Your task to perform on an android device: Search for the best rated tool bag on Lowe's. Image 0: 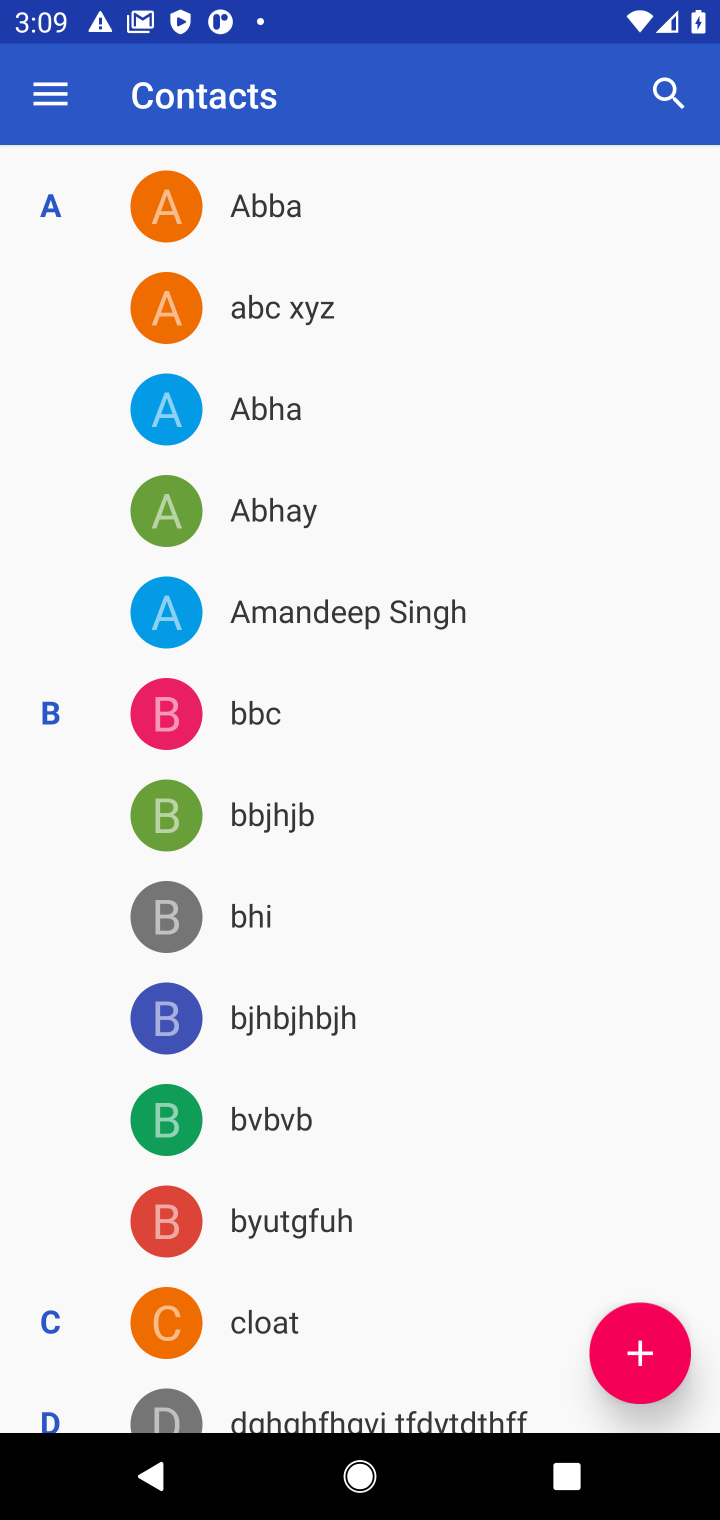
Step 0: press home button
Your task to perform on an android device: Search for the best rated tool bag on Lowe's. Image 1: 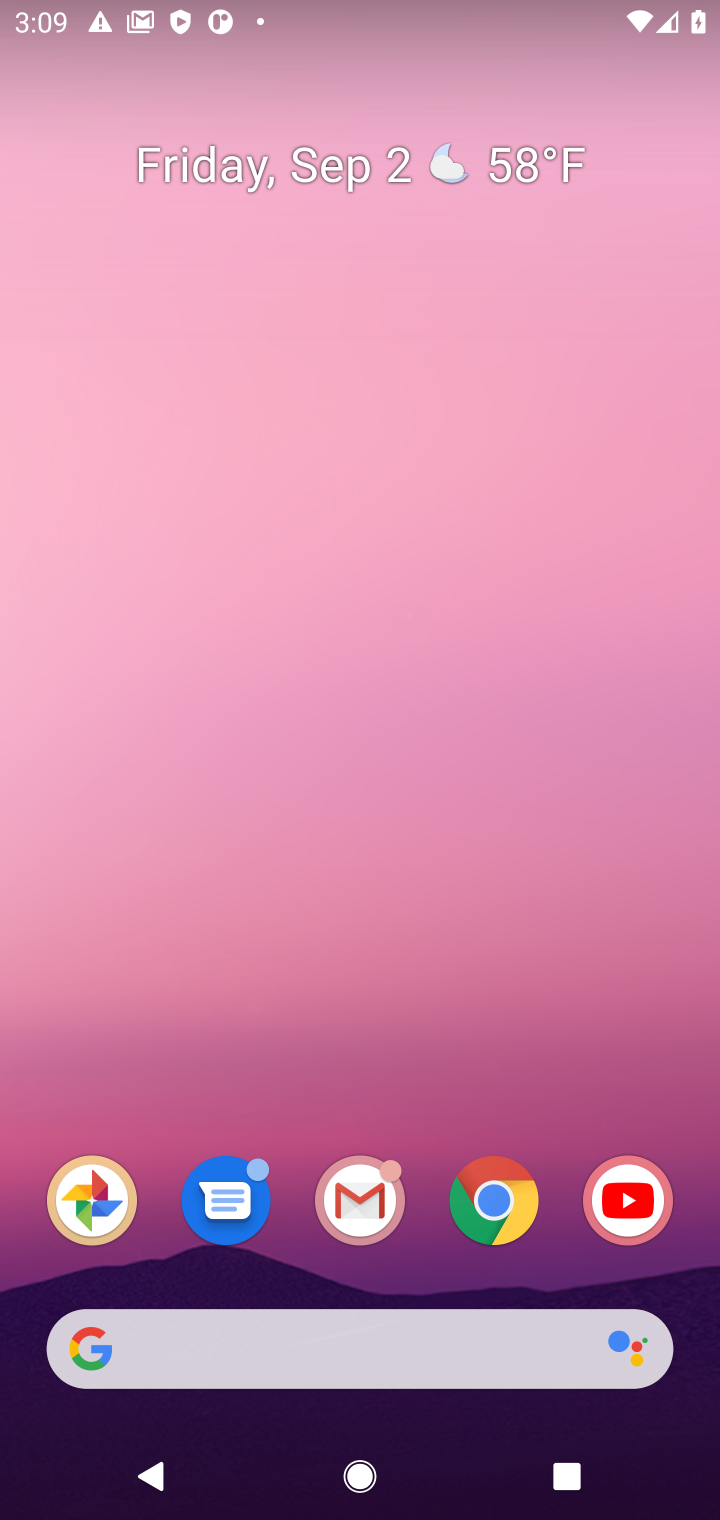
Step 1: click (494, 1204)
Your task to perform on an android device: Search for the best rated tool bag on Lowe's. Image 2: 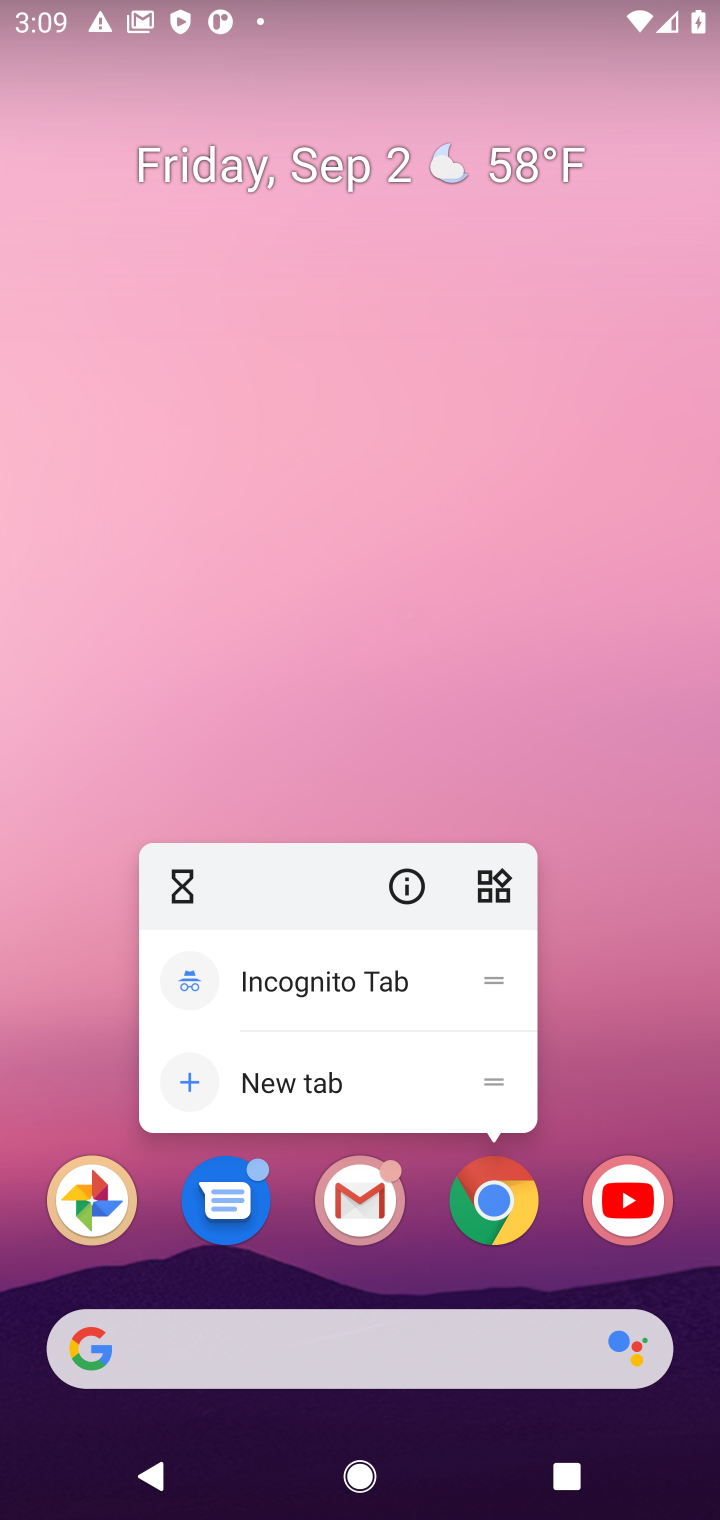
Step 2: click (494, 1204)
Your task to perform on an android device: Search for the best rated tool bag on Lowe's. Image 3: 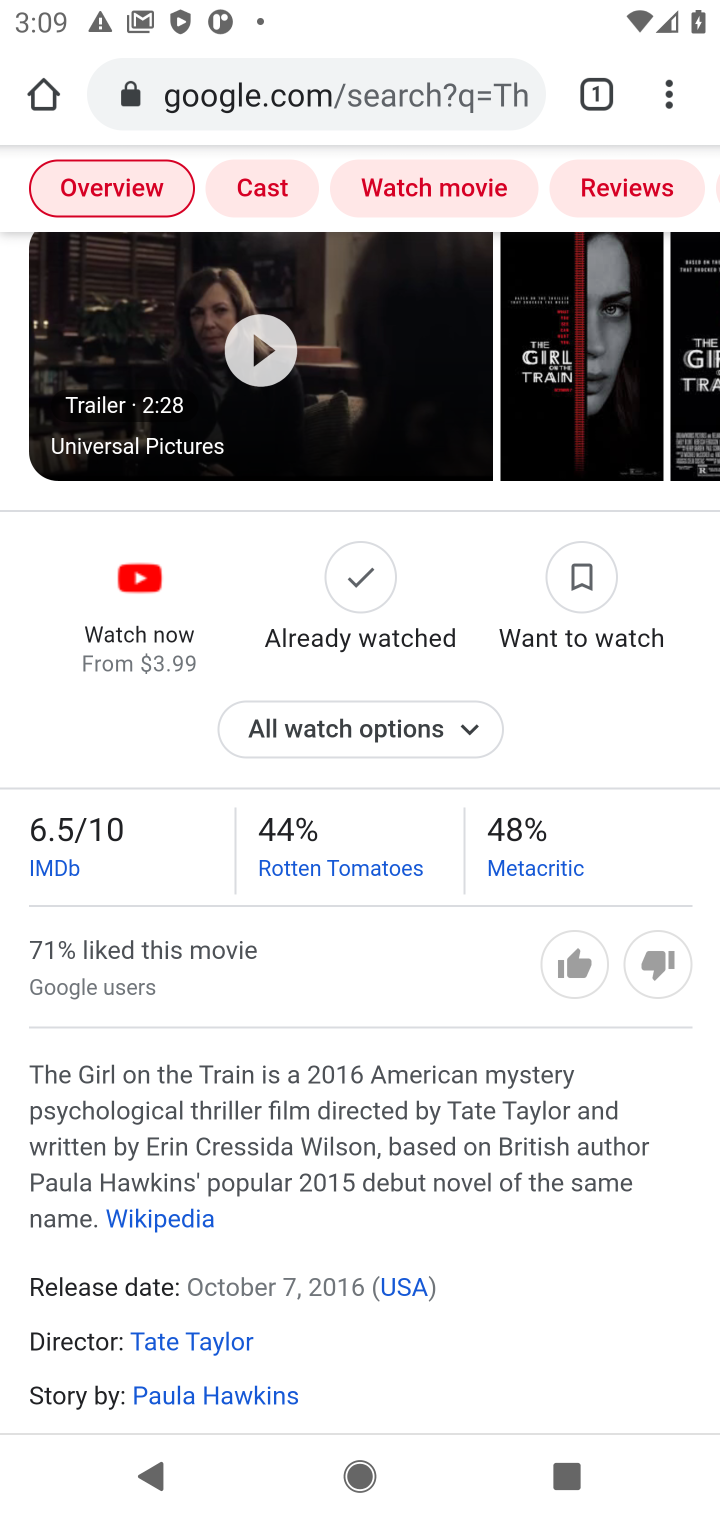
Step 3: click (405, 93)
Your task to perform on an android device: Search for the best rated tool bag on Lowe's. Image 4: 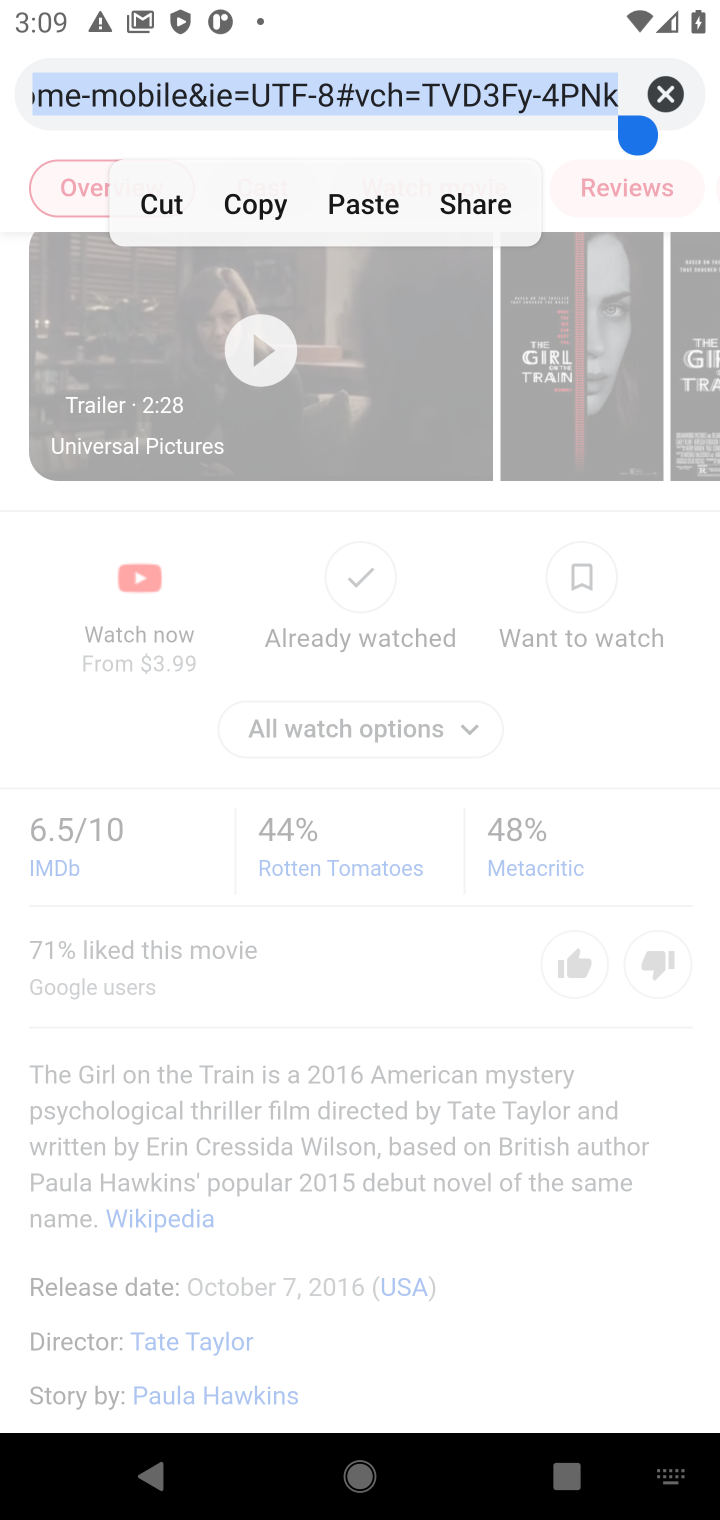
Step 4: click (669, 87)
Your task to perform on an android device: Search for the best rated tool bag on Lowe's. Image 5: 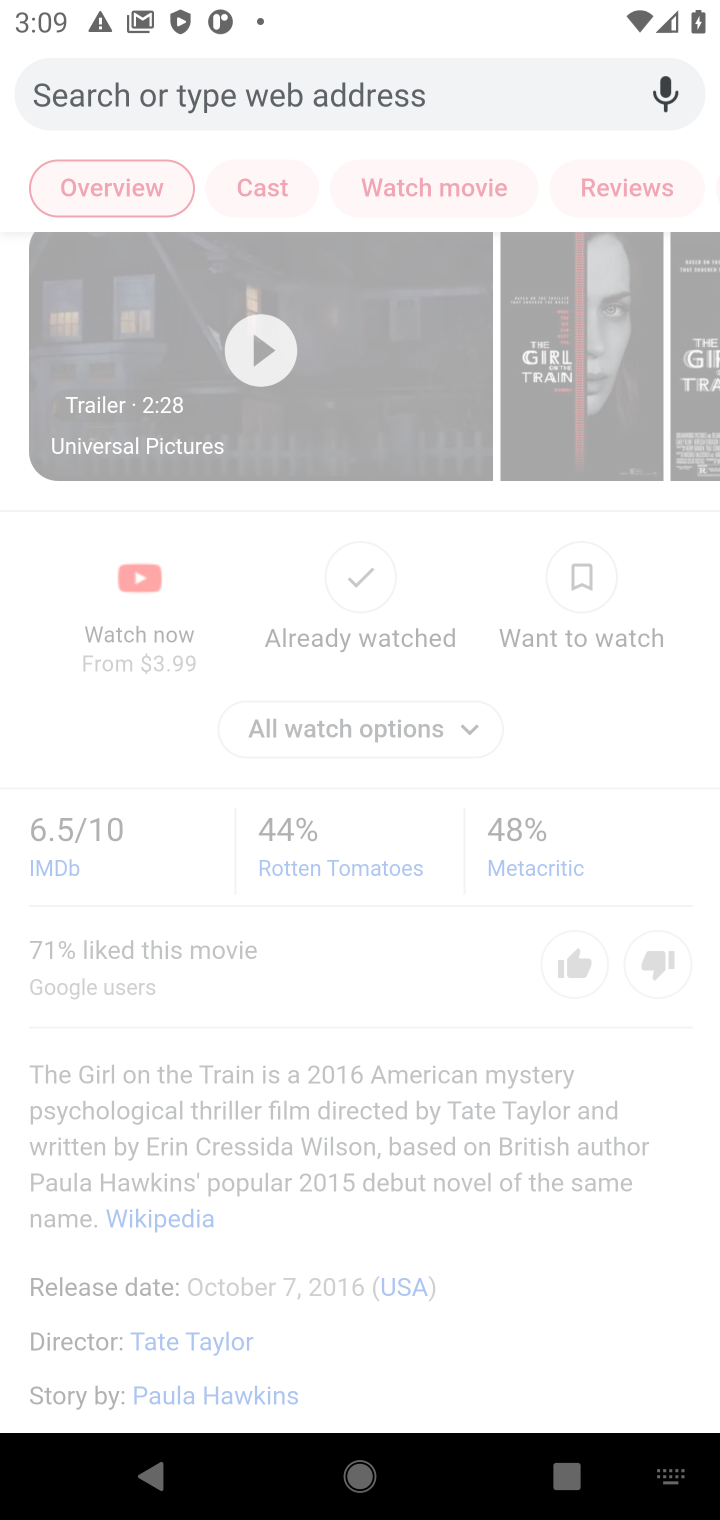
Step 5: type " Lowe's"
Your task to perform on an android device: Search for the best rated tool bag on Lowe's. Image 6: 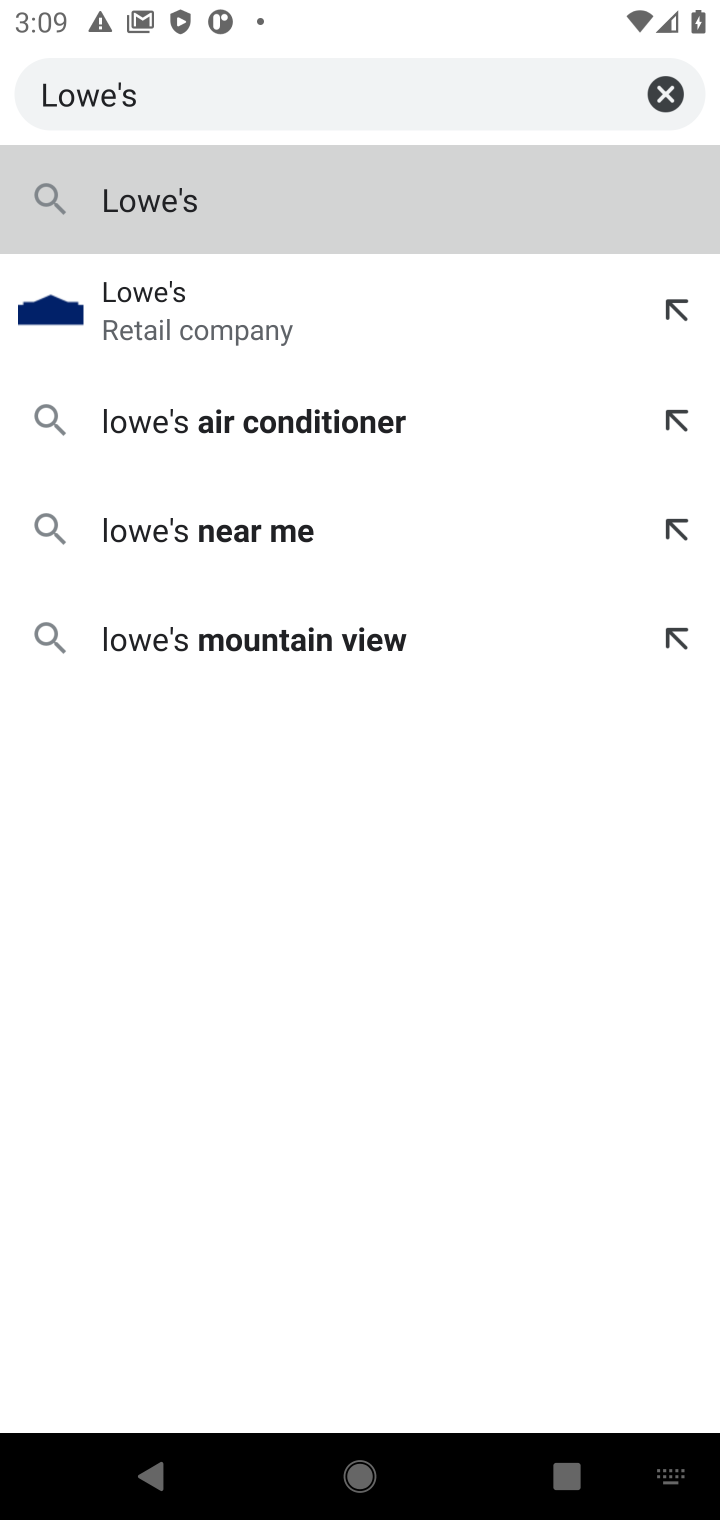
Step 6: press enter
Your task to perform on an android device: Search for the best rated tool bag on Lowe's. Image 7: 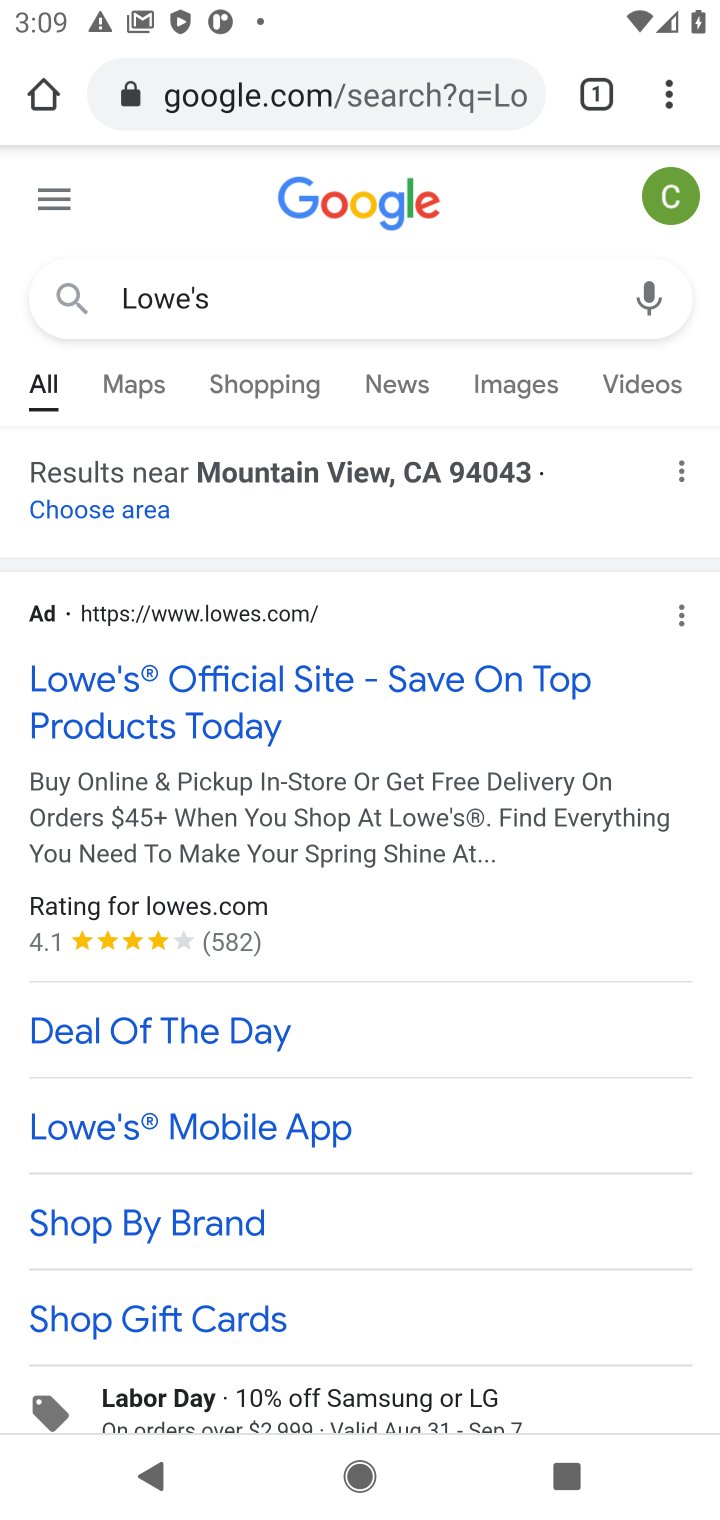
Step 7: click (304, 672)
Your task to perform on an android device: Search for the best rated tool bag on Lowe's. Image 8: 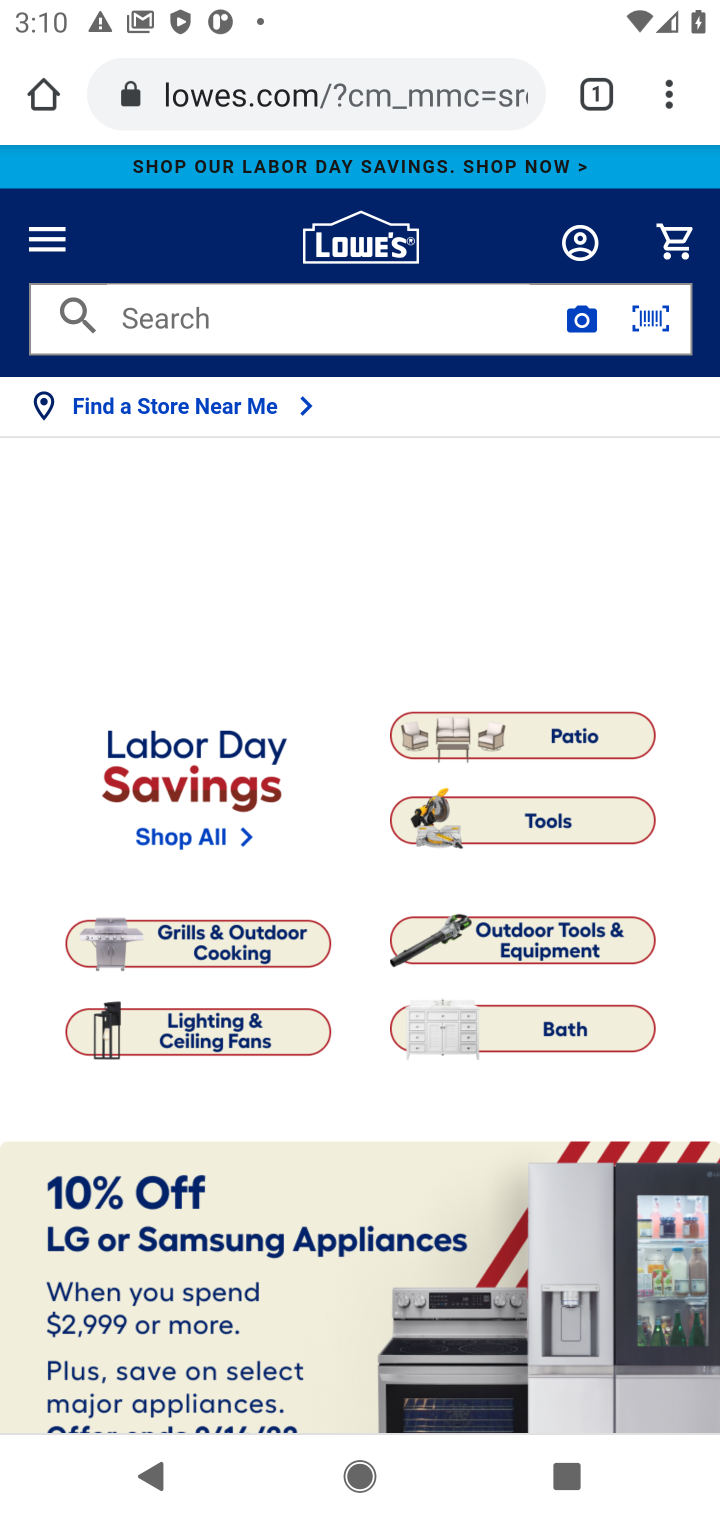
Step 8: click (313, 329)
Your task to perform on an android device: Search for the best rated tool bag on Lowe's. Image 9: 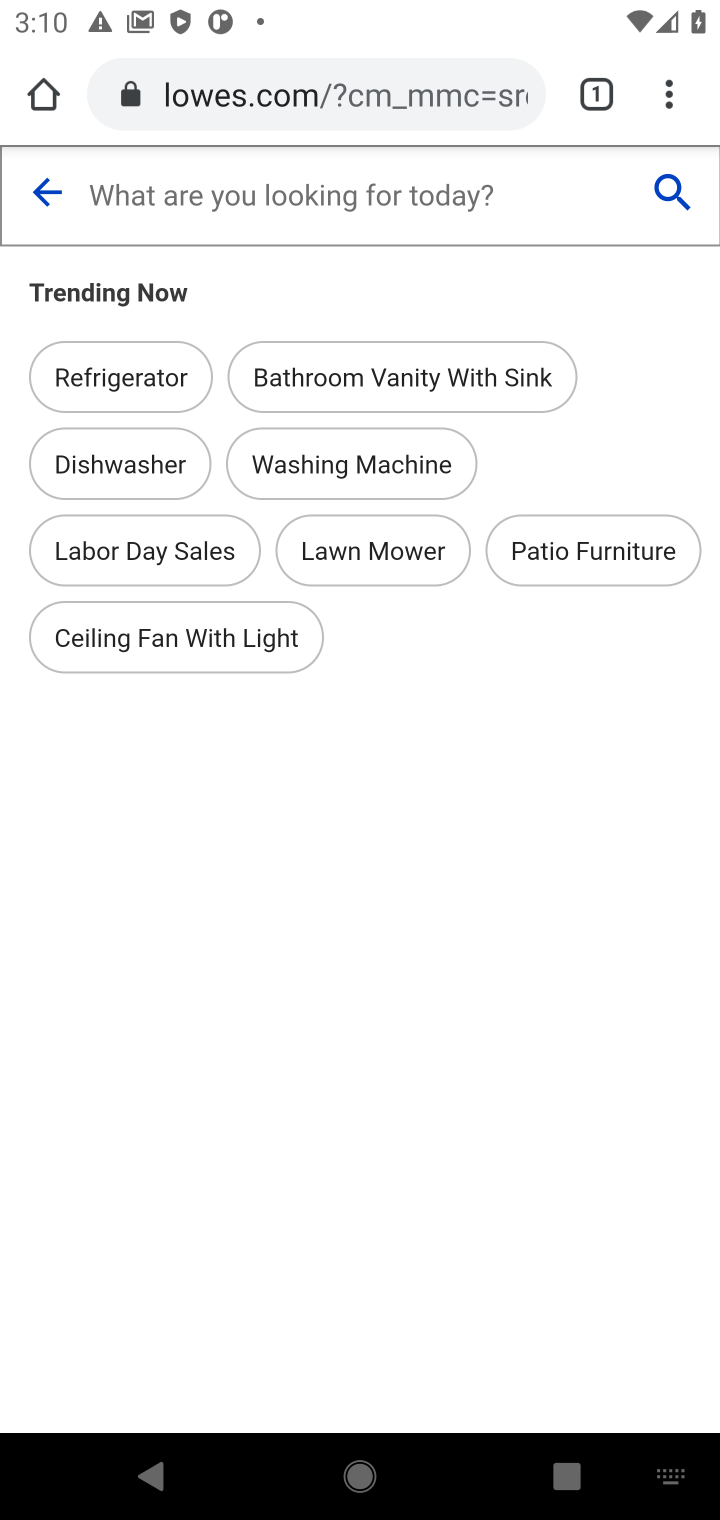
Step 9: press enter
Your task to perform on an android device: Search for the best rated tool bag on Lowe's. Image 10: 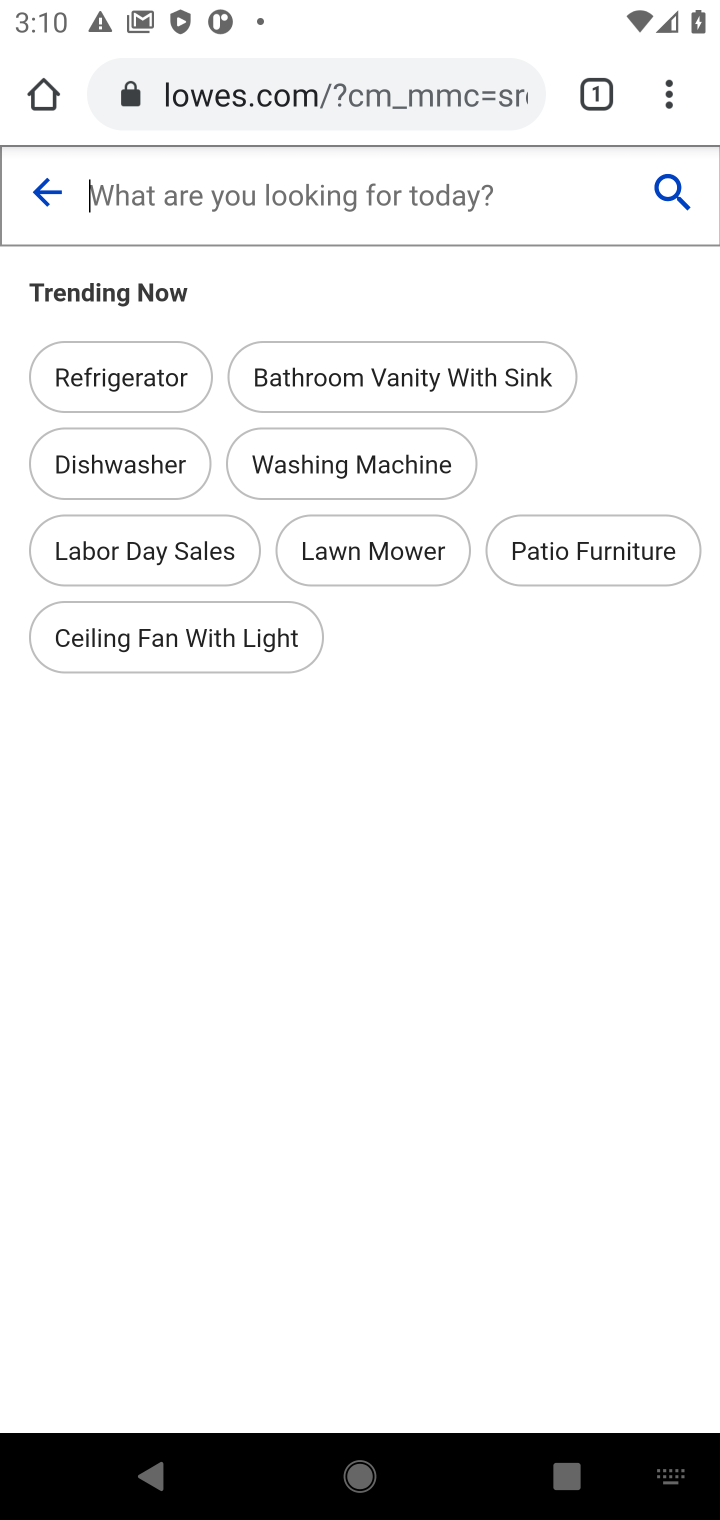
Step 10: type "tool bag "
Your task to perform on an android device: Search for the best rated tool bag on Lowe's. Image 11: 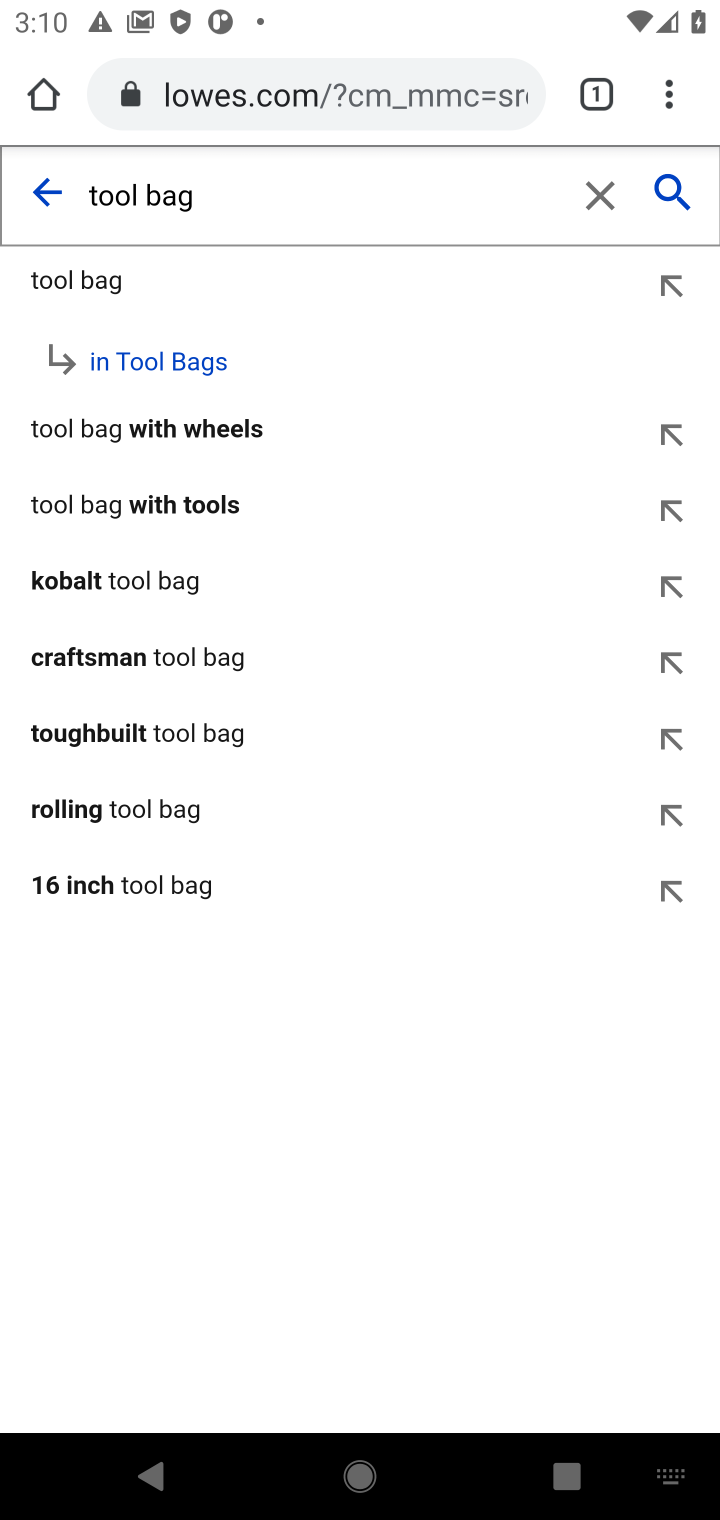
Step 11: click (87, 275)
Your task to perform on an android device: Search for the best rated tool bag on Lowe's. Image 12: 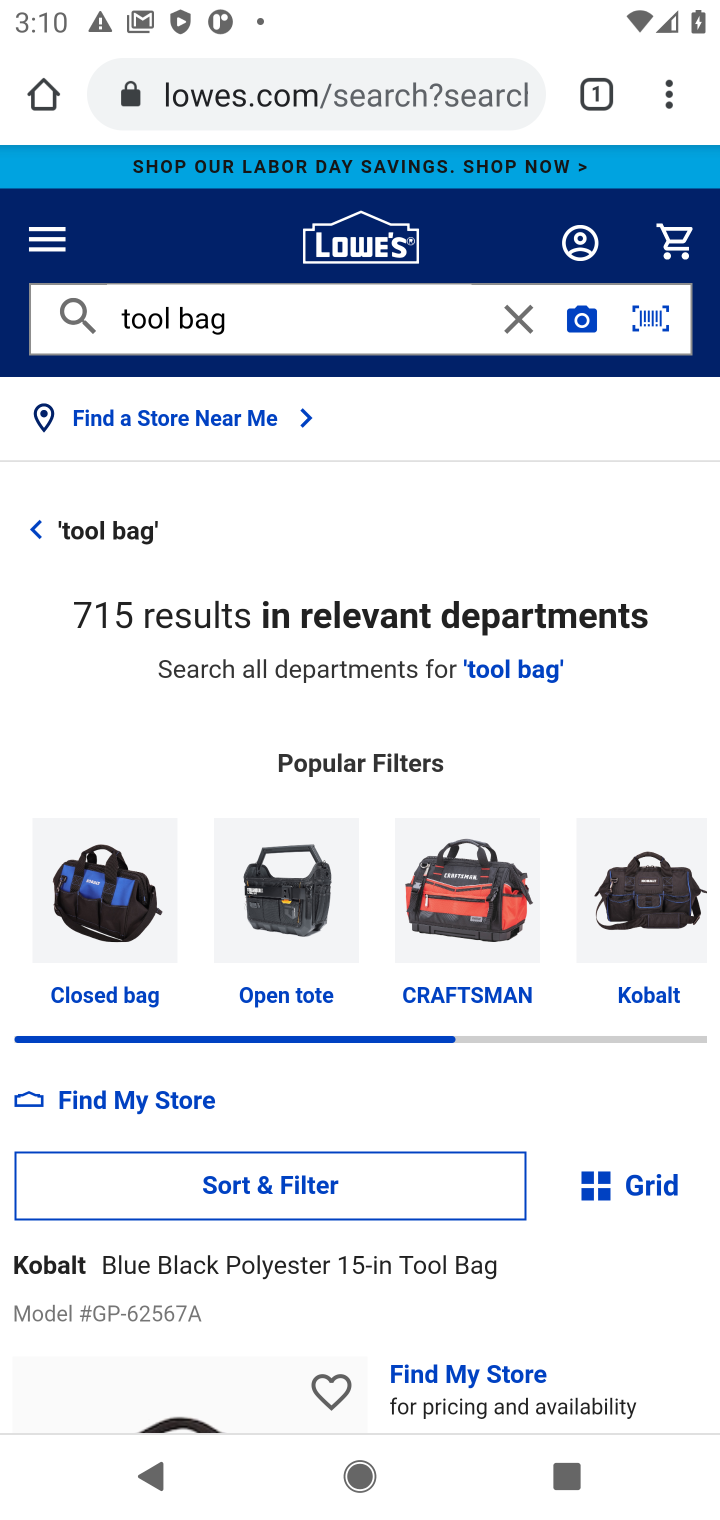
Step 12: task complete